Your task to perform on an android device: What's the weather going to be this weekend? Image 0: 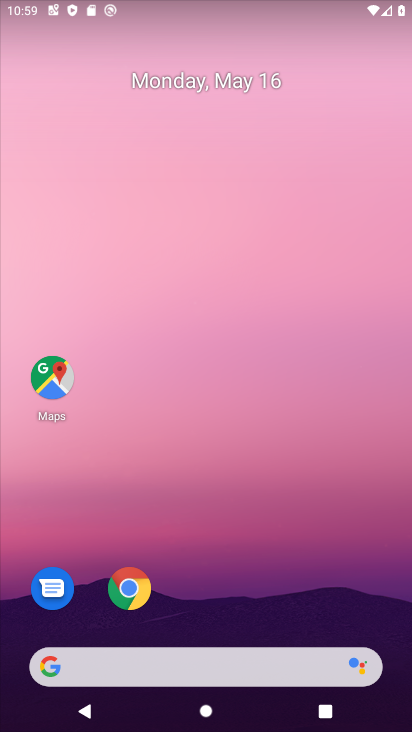
Step 0: click (305, 672)
Your task to perform on an android device: What's the weather going to be this weekend? Image 1: 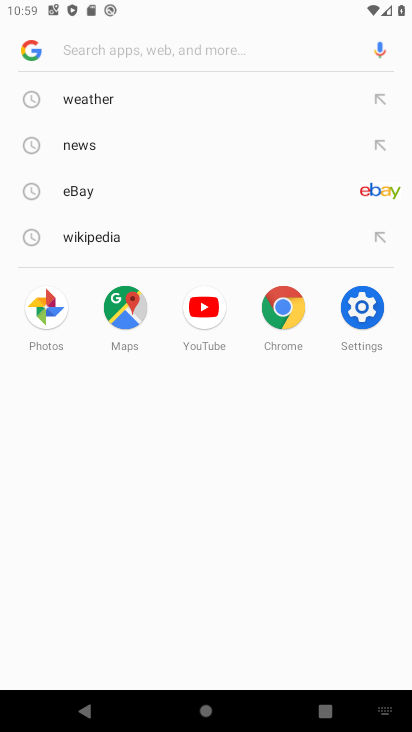
Step 1: click (109, 94)
Your task to perform on an android device: What's the weather going to be this weekend? Image 2: 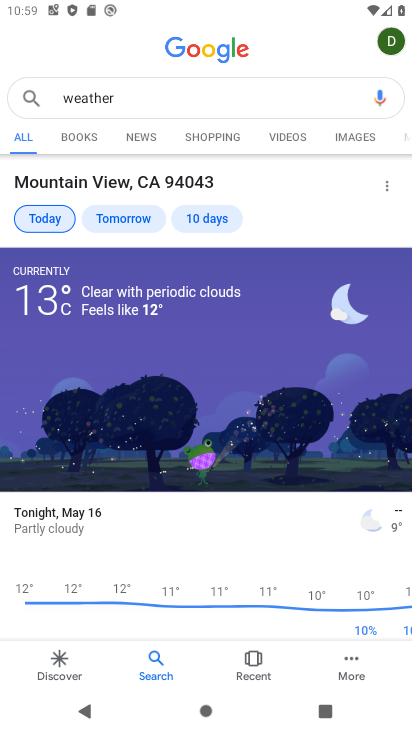
Step 2: click (213, 218)
Your task to perform on an android device: What's the weather going to be this weekend? Image 3: 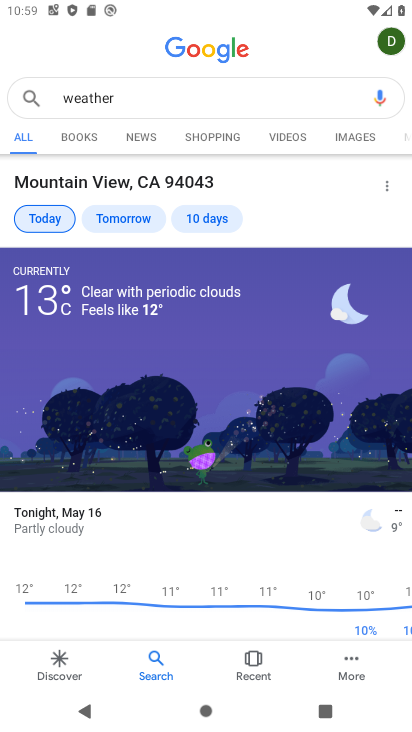
Step 3: click (221, 226)
Your task to perform on an android device: What's the weather going to be this weekend? Image 4: 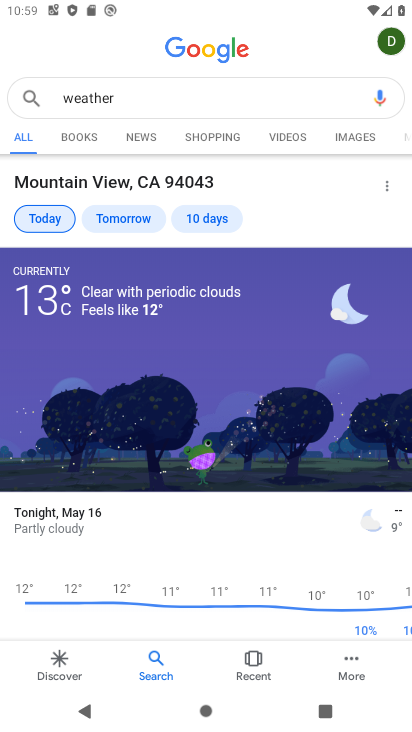
Step 4: click (210, 215)
Your task to perform on an android device: What's the weather going to be this weekend? Image 5: 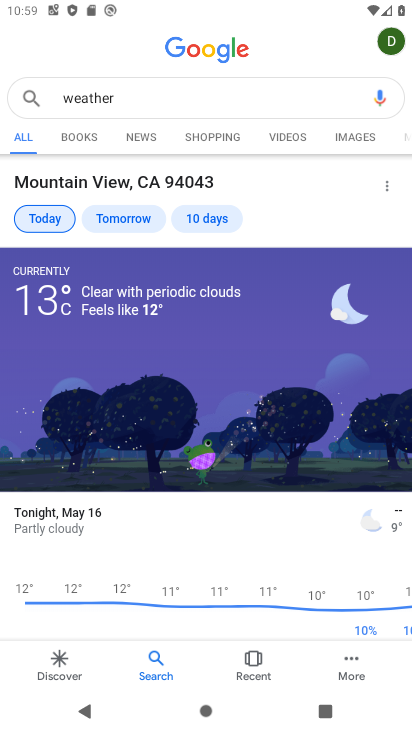
Step 5: click (210, 215)
Your task to perform on an android device: What's the weather going to be this weekend? Image 6: 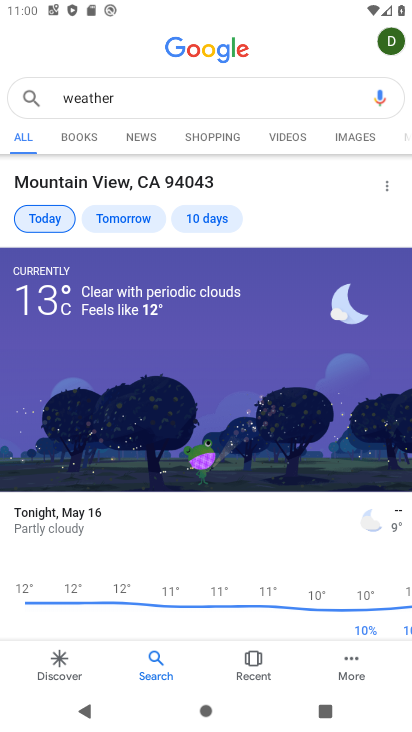
Step 6: click (210, 215)
Your task to perform on an android device: What's the weather going to be this weekend? Image 7: 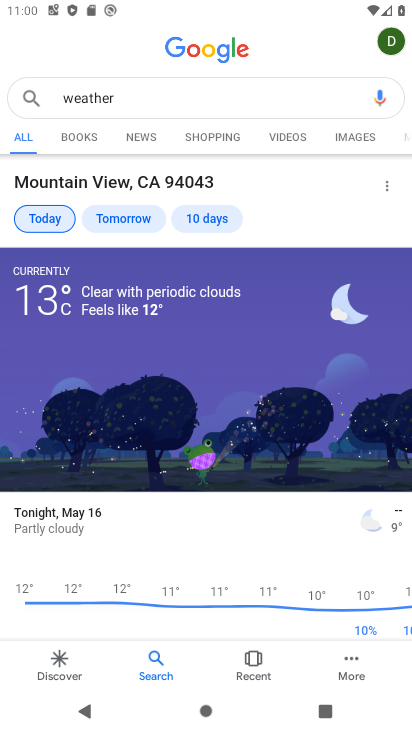
Step 7: click (211, 216)
Your task to perform on an android device: What's the weather going to be this weekend? Image 8: 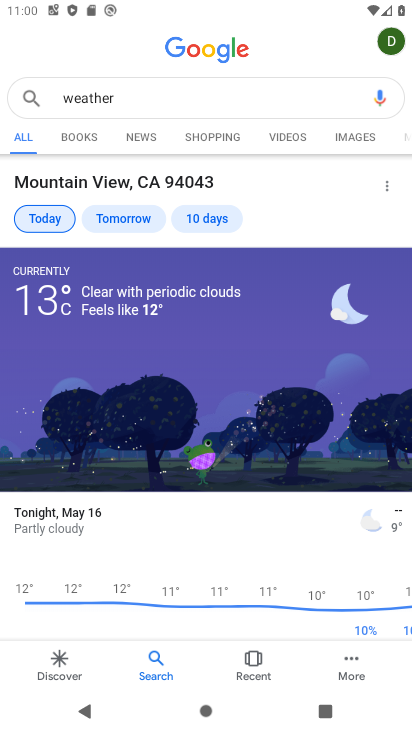
Step 8: task complete